Your task to perform on an android device: Open Wikipedia Image 0: 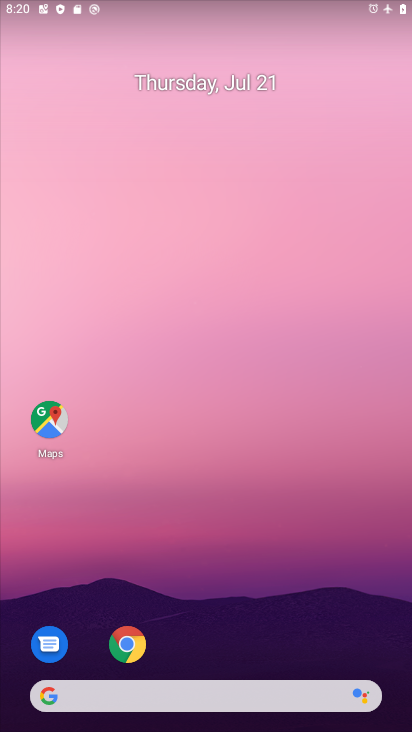
Step 0: click (137, 636)
Your task to perform on an android device: Open Wikipedia Image 1: 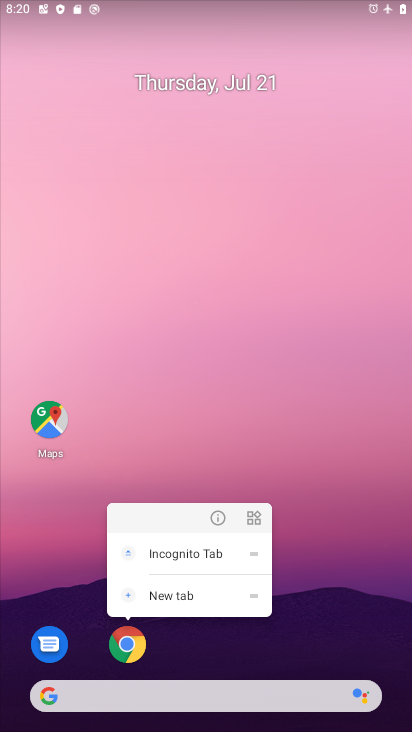
Step 1: click (135, 642)
Your task to perform on an android device: Open Wikipedia Image 2: 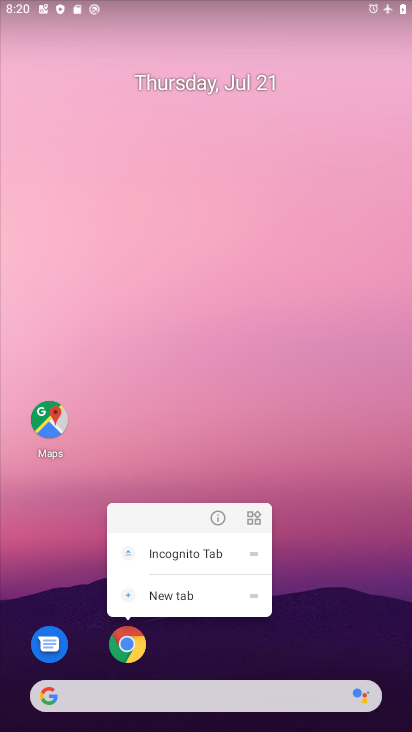
Step 2: click (137, 647)
Your task to perform on an android device: Open Wikipedia Image 3: 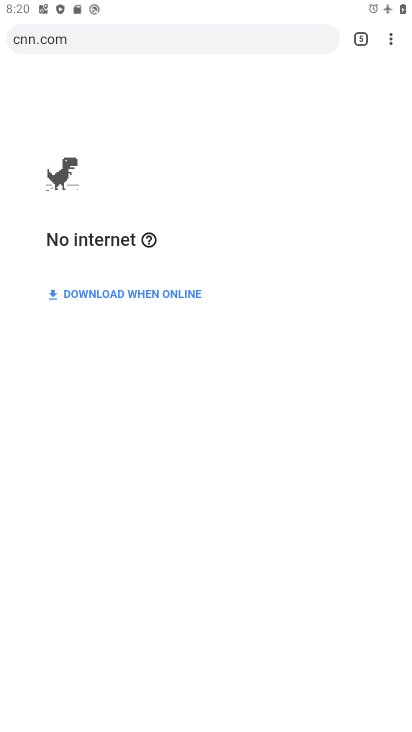
Step 3: click (387, 32)
Your task to perform on an android device: Open Wikipedia Image 4: 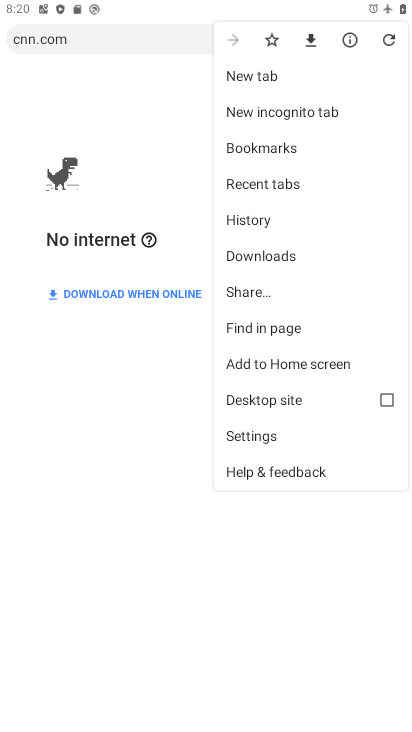
Step 4: click (249, 73)
Your task to perform on an android device: Open Wikipedia Image 5: 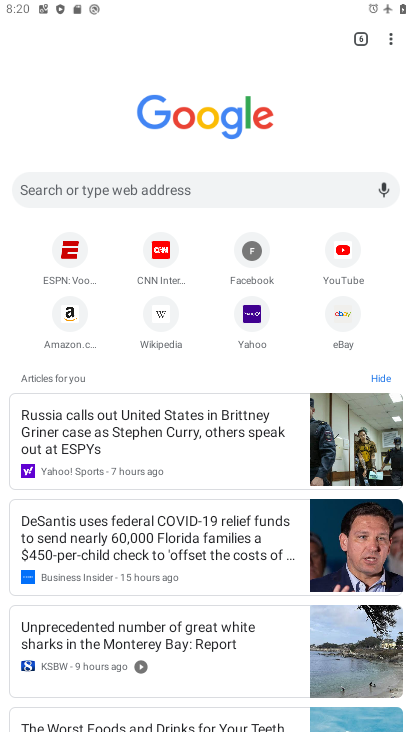
Step 5: click (166, 311)
Your task to perform on an android device: Open Wikipedia Image 6: 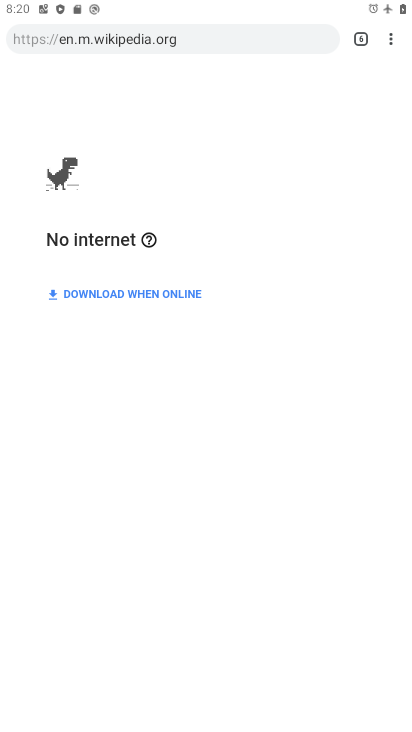
Step 6: task complete